Your task to perform on an android device: check out phone information Image 0: 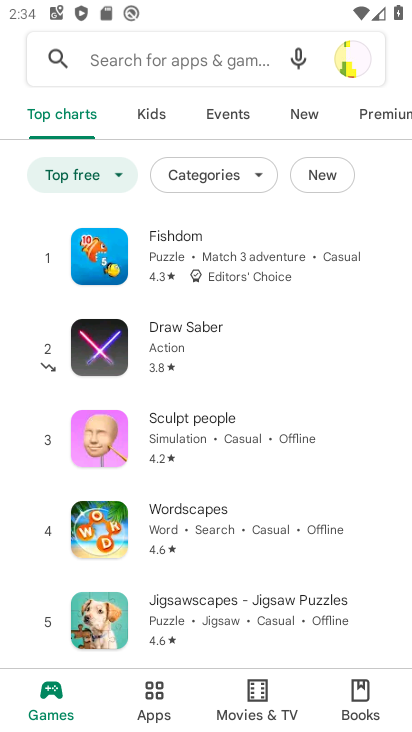
Step 0: press home button
Your task to perform on an android device: check out phone information Image 1: 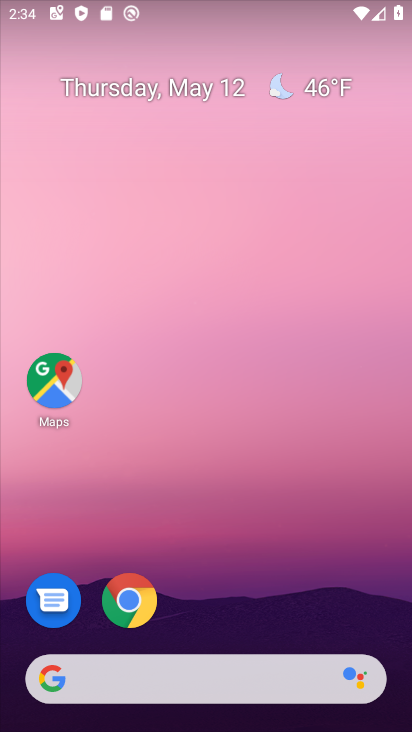
Step 1: drag from (224, 527) to (267, 239)
Your task to perform on an android device: check out phone information Image 2: 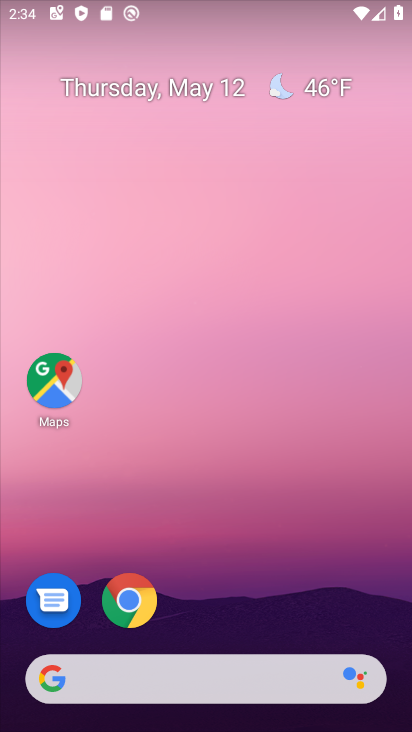
Step 2: drag from (260, 618) to (260, 127)
Your task to perform on an android device: check out phone information Image 3: 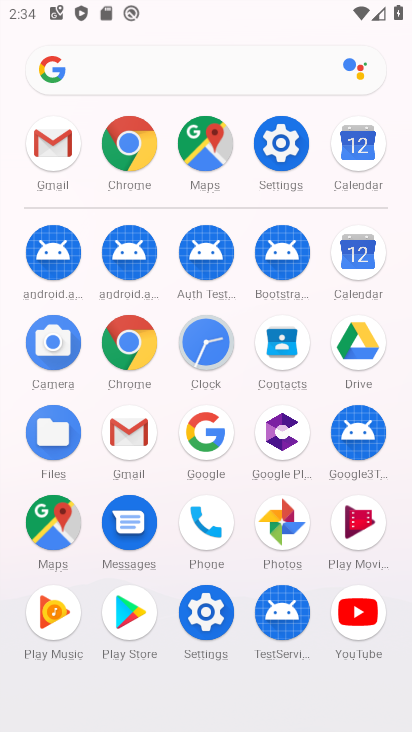
Step 3: click (217, 601)
Your task to perform on an android device: check out phone information Image 4: 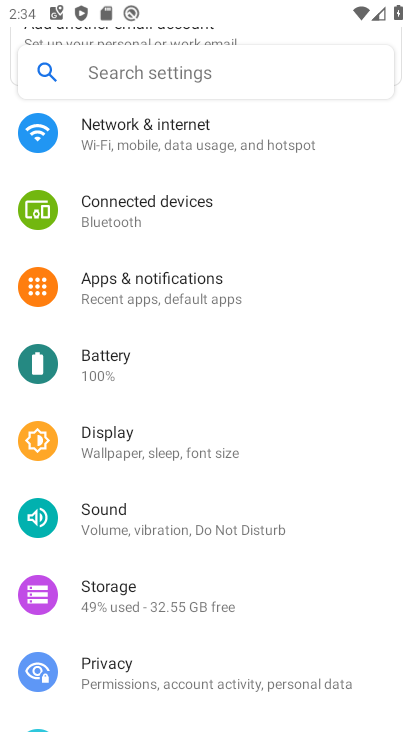
Step 4: drag from (174, 548) to (252, 53)
Your task to perform on an android device: check out phone information Image 5: 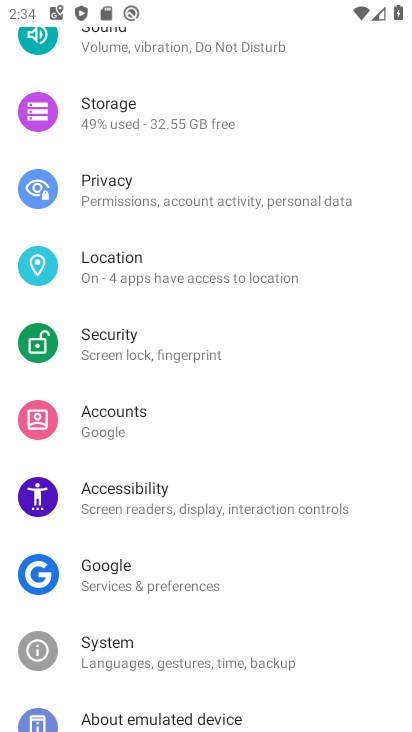
Step 5: drag from (206, 496) to (250, 66)
Your task to perform on an android device: check out phone information Image 6: 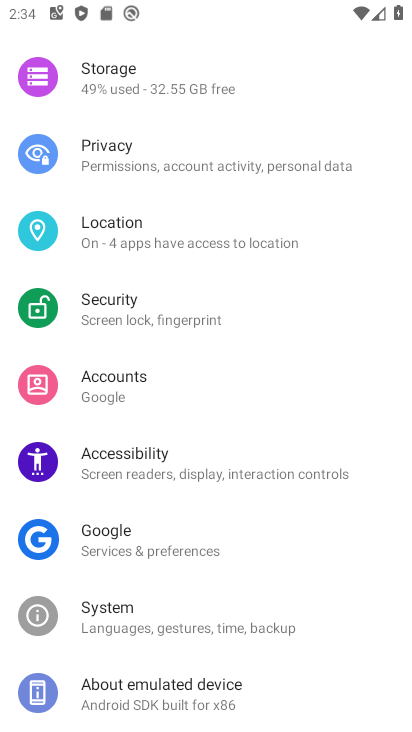
Step 6: click (172, 661)
Your task to perform on an android device: check out phone information Image 7: 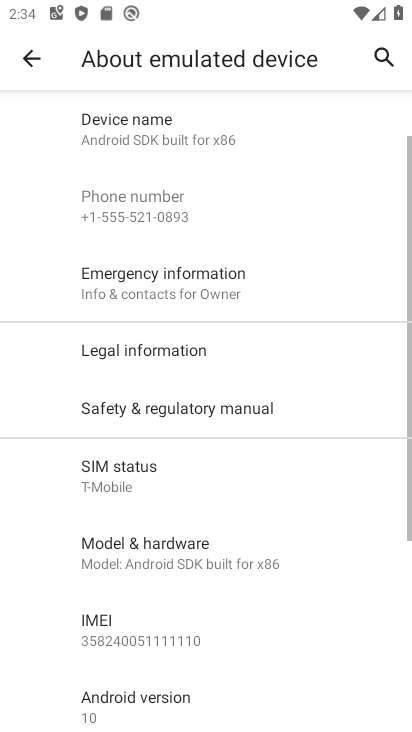
Step 7: task complete